Your task to perform on an android device: Open internet settings Image 0: 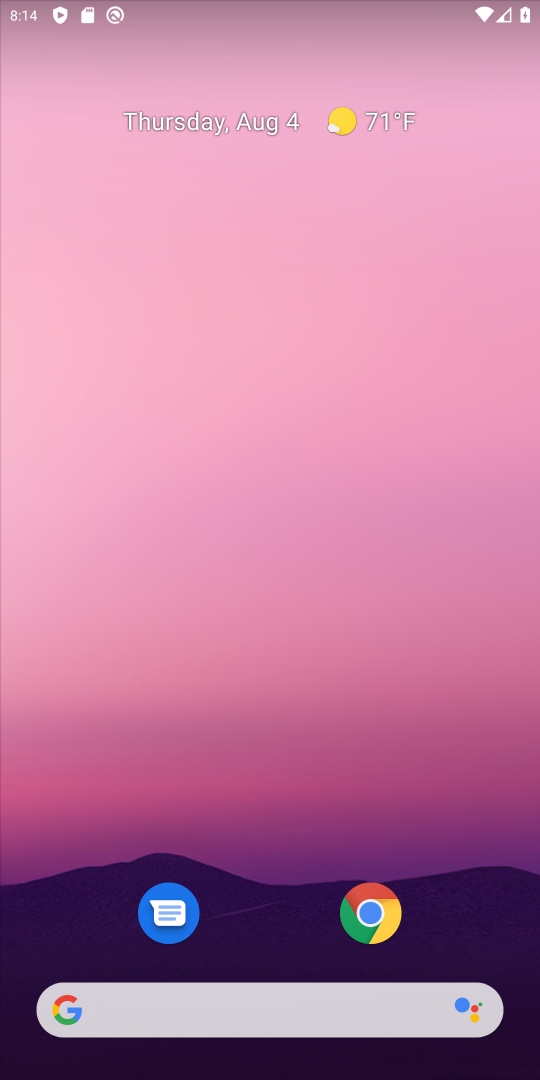
Step 0: drag from (202, 16) to (2, 294)
Your task to perform on an android device: Open internet settings Image 1: 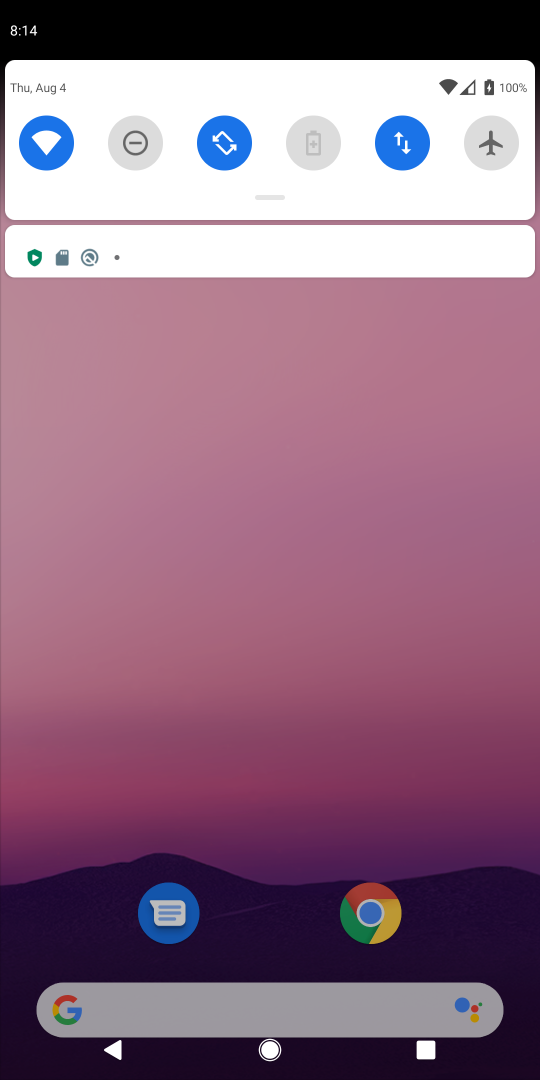
Step 1: drag from (244, 949) to (383, 72)
Your task to perform on an android device: Open internet settings Image 2: 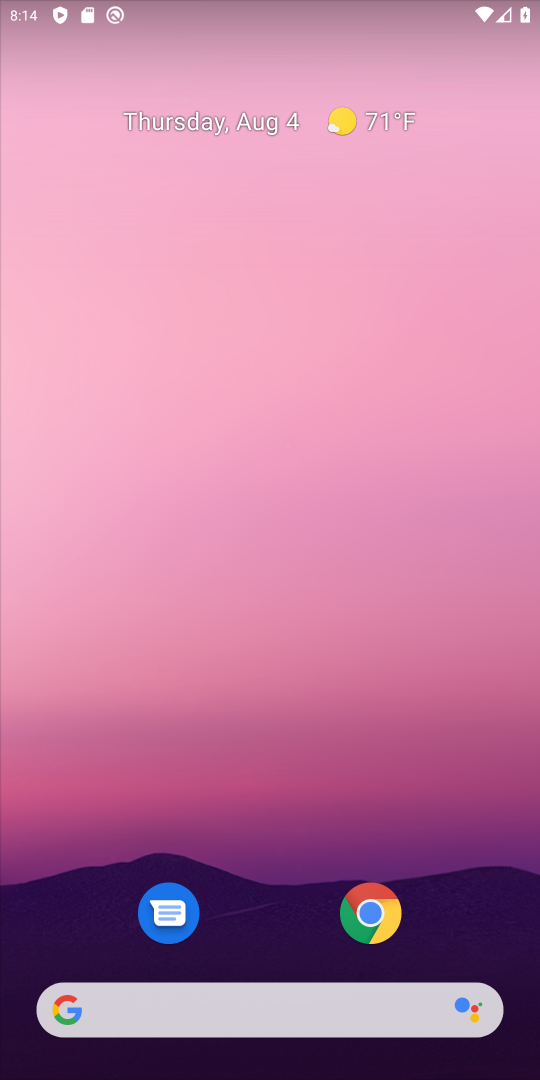
Step 2: drag from (287, 949) to (407, 194)
Your task to perform on an android device: Open internet settings Image 3: 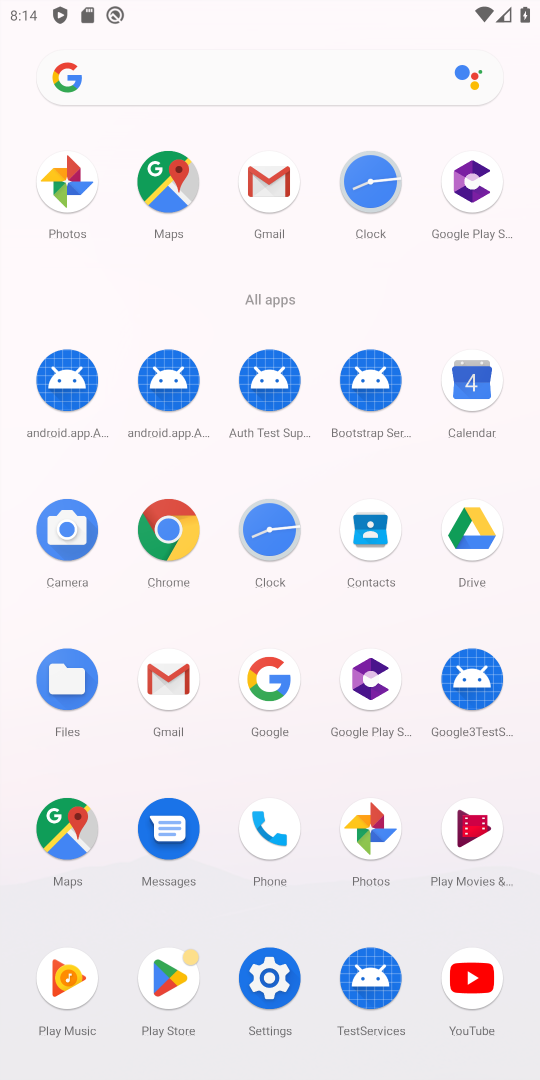
Step 3: click (259, 958)
Your task to perform on an android device: Open internet settings Image 4: 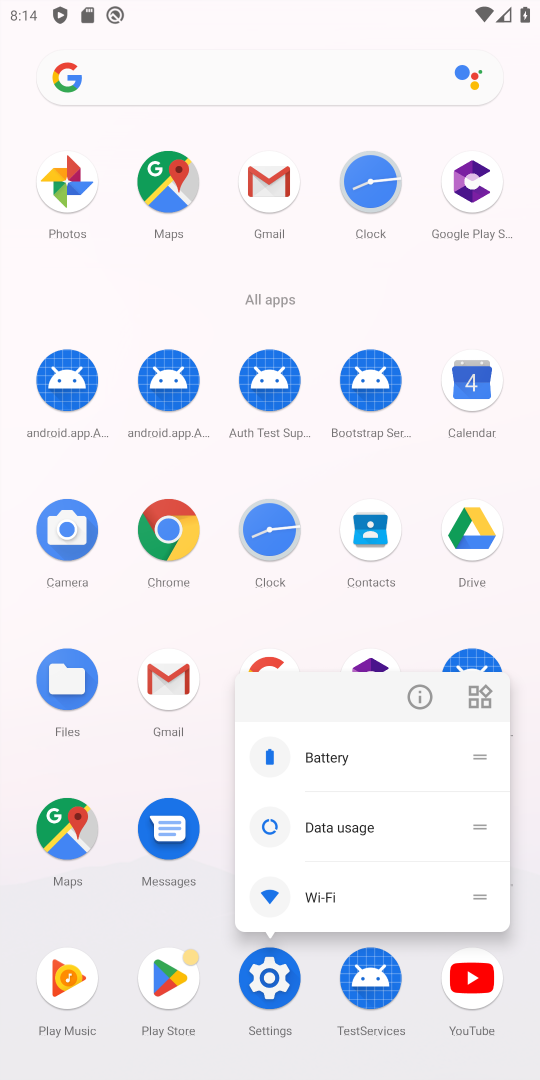
Step 4: click (411, 711)
Your task to perform on an android device: Open internet settings Image 5: 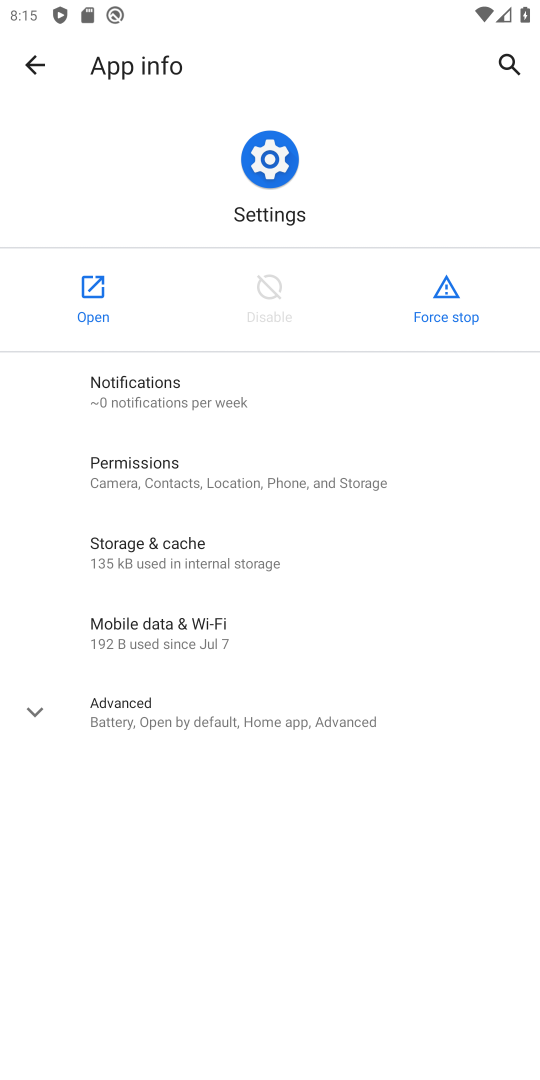
Step 5: click (102, 290)
Your task to perform on an android device: Open internet settings Image 6: 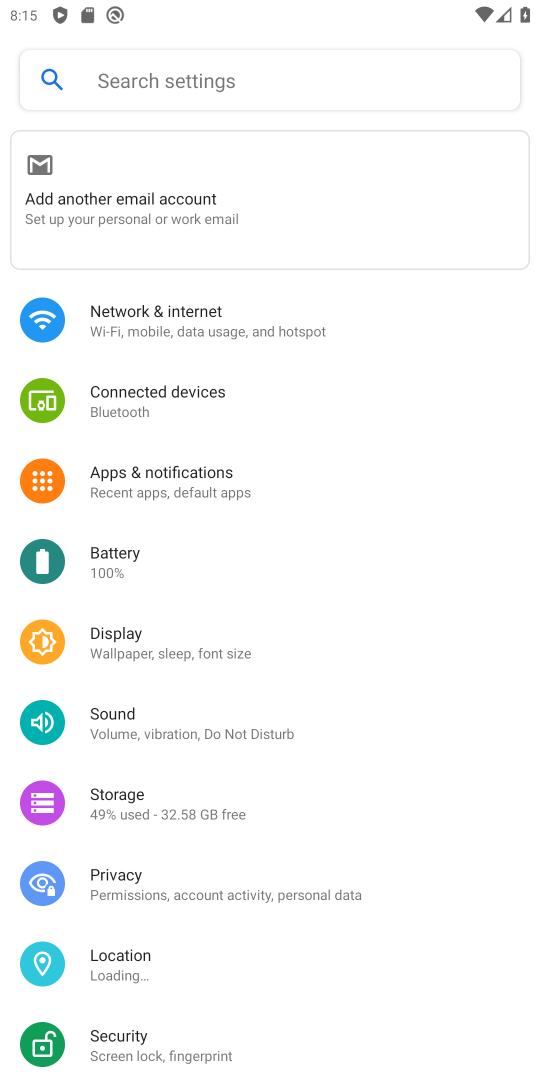
Step 6: click (180, 312)
Your task to perform on an android device: Open internet settings Image 7: 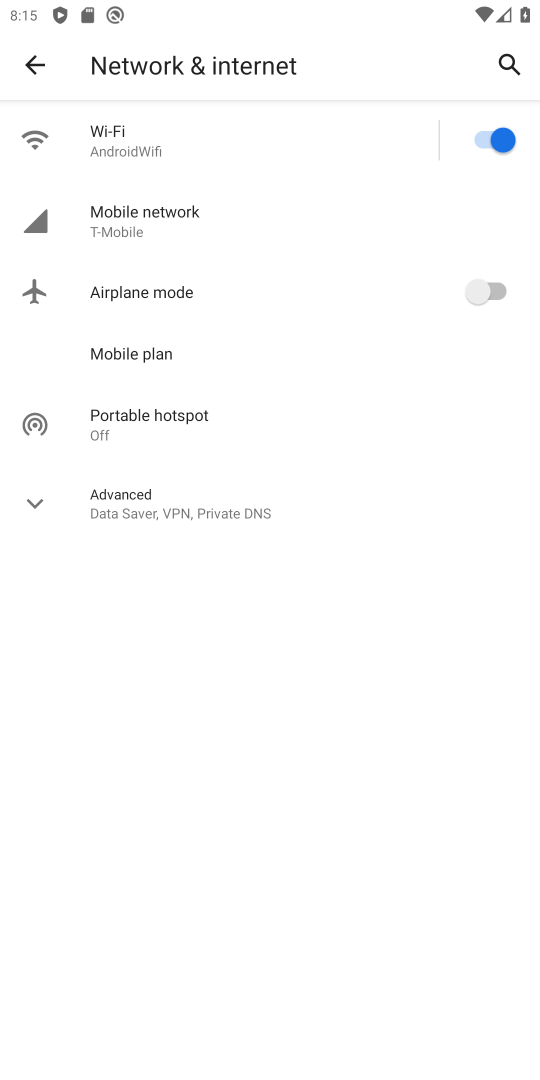
Step 7: task complete